Your task to perform on an android device: add a label to a message in the gmail app Image 0: 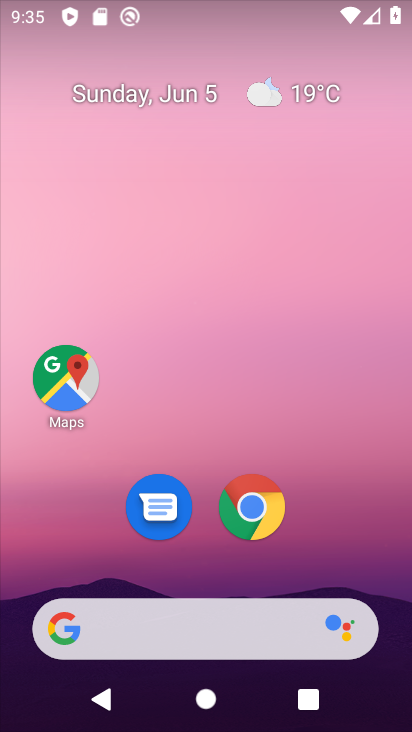
Step 0: drag from (176, 583) to (172, 56)
Your task to perform on an android device: add a label to a message in the gmail app Image 1: 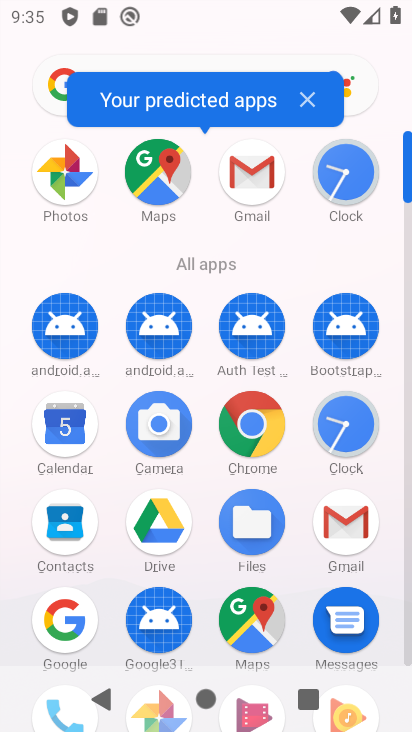
Step 1: click (253, 177)
Your task to perform on an android device: add a label to a message in the gmail app Image 2: 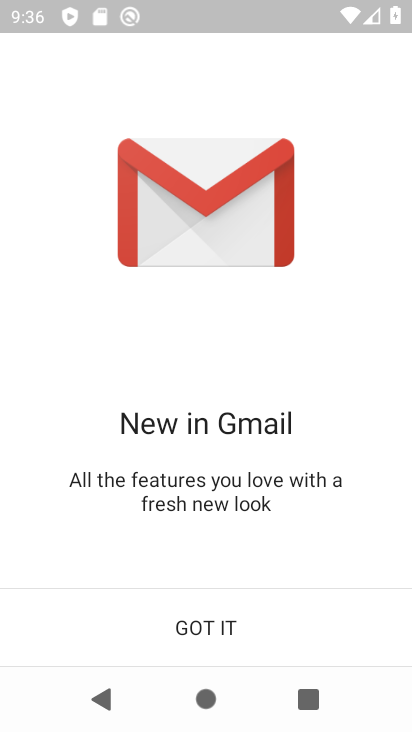
Step 2: click (236, 641)
Your task to perform on an android device: add a label to a message in the gmail app Image 3: 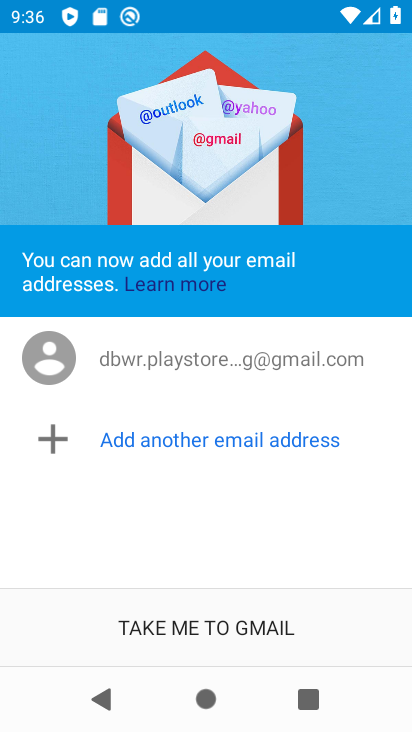
Step 3: click (236, 641)
Your task to perform on an android device: add a label to a message in the gmail app Image 4: 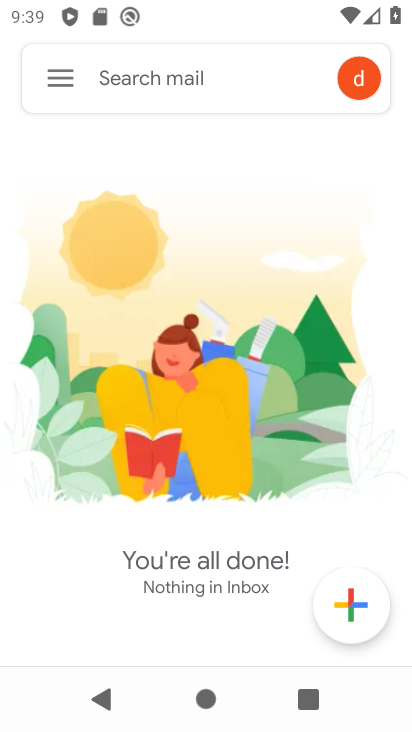
Step 4: task complete